Your task to perform on an android device: Go to calendar. Show me events next week Image 0: 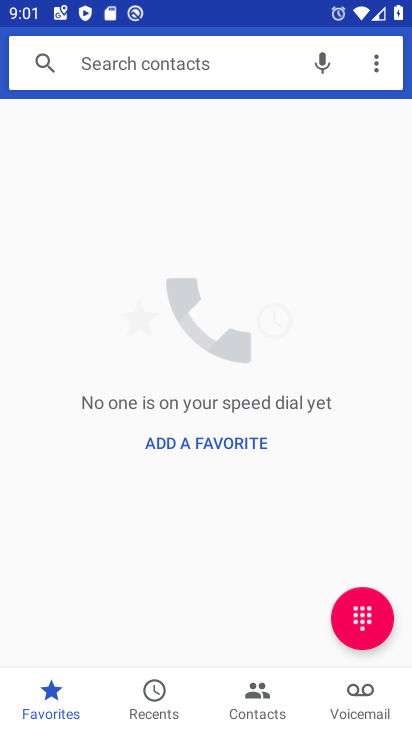
Step 0: press home button
Your task to perform on an android device: Go to calendar. Show me events next week Image 1: 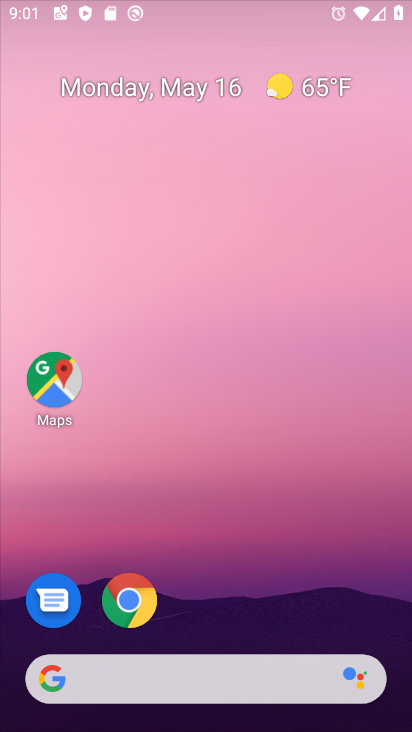
Step 1: drag from (216, 544) to (331, 2)
Your task to perform on an android device: Go to calendar. Show me events next week Image 2: 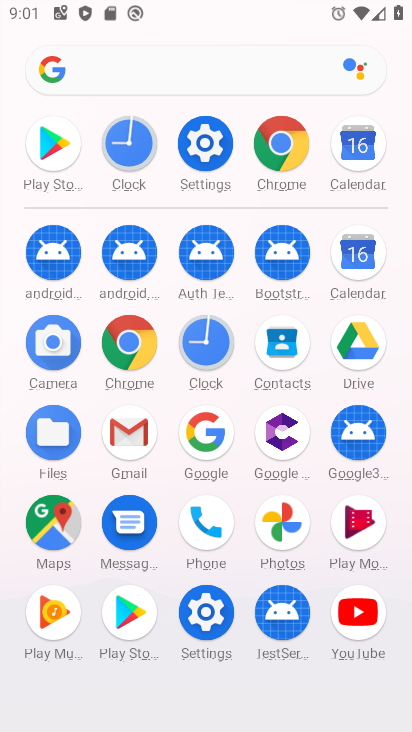
Step 2: click (346, 144)
Your task to perform on an android device: Go to calendar. Show me events next week Image 3: 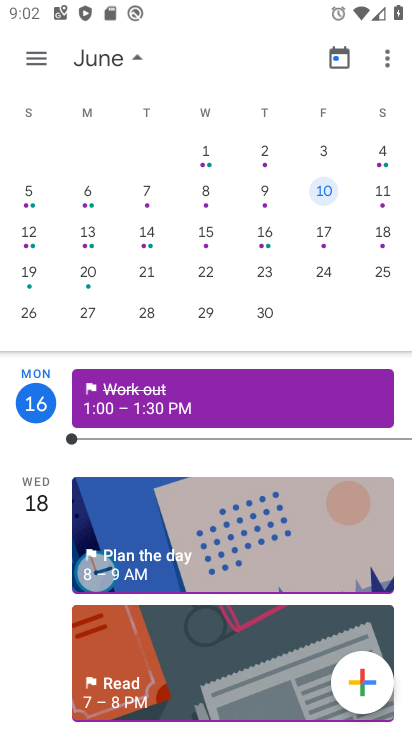
Step 3: drag from (21, 253) to (409, 231)
Your task to perform on an android device: Go to calendar. Show me events next week Image 4: 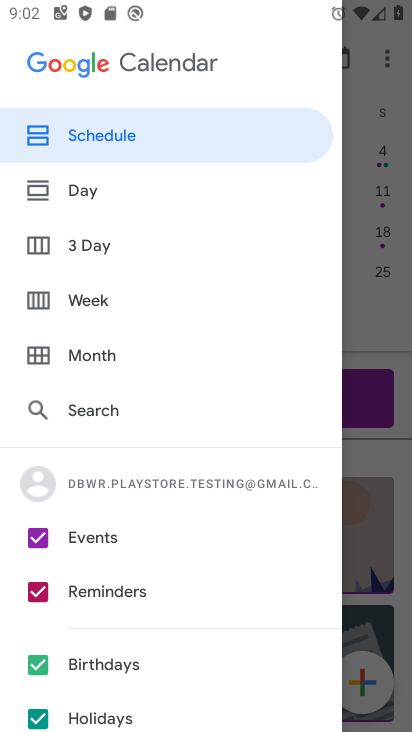
Step 4: click (364, 90)
Your task to perform on an android device: Go to calendar. Show me events next week Image 5: 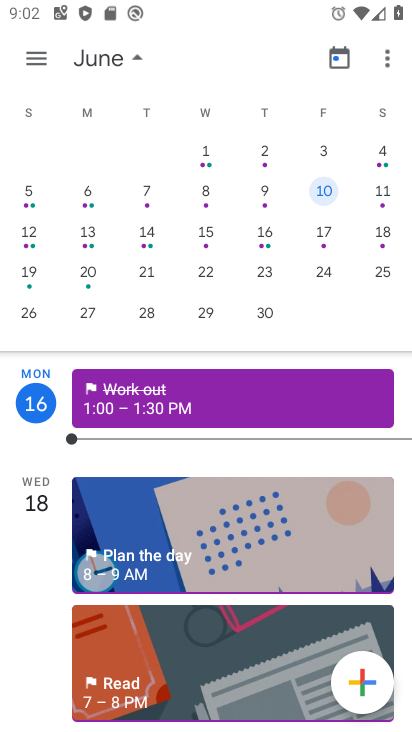
Step 5: drag from (58, 200) to (376, 194)
Your task to perform on an android device: Go to calendar. Show me events next week Image 6: 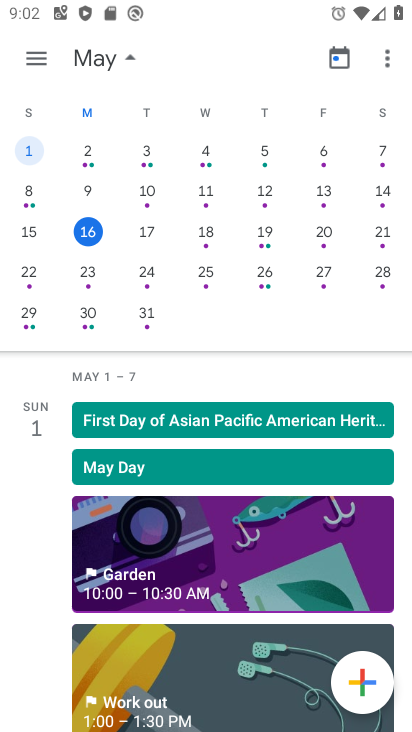
Step 6: click (259, 233)
Your task to perform on an android device: Go to calendar. Show me events next week Image 7: 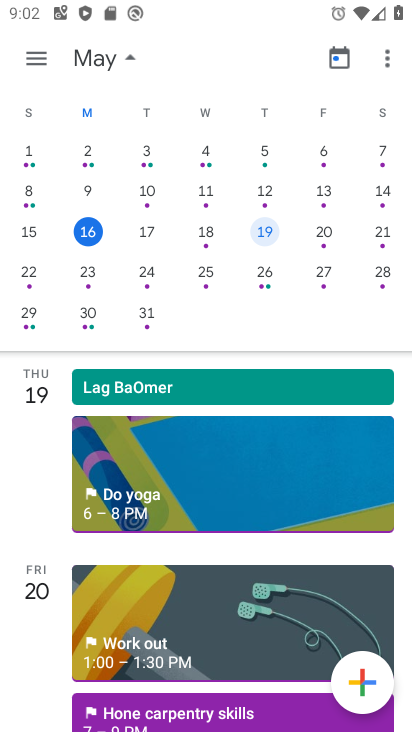
Step 7: click (269, 279)
Your task to perform on an android device: Go to calendar. Show me events next week Image 8: 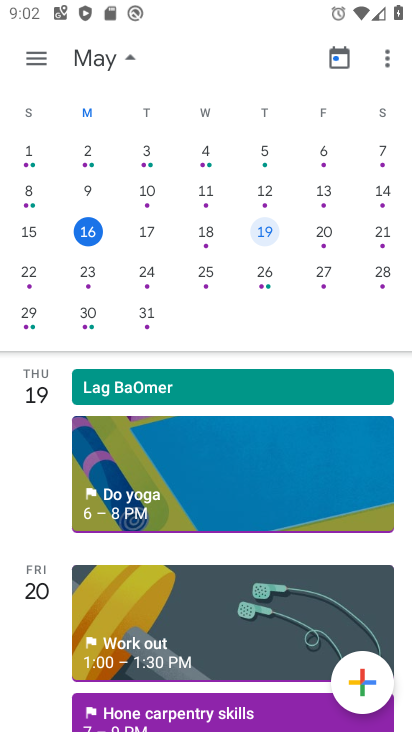
Step 8: task complete